Your task to perform on an android device: clear history in the chrome app Image 0: 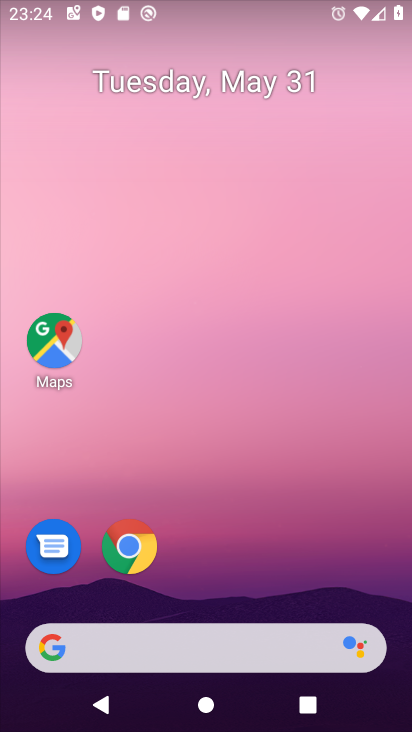
Step 0: click (138, 556)
Your task to perform on an android device: clear history in the chrome app Image 1: 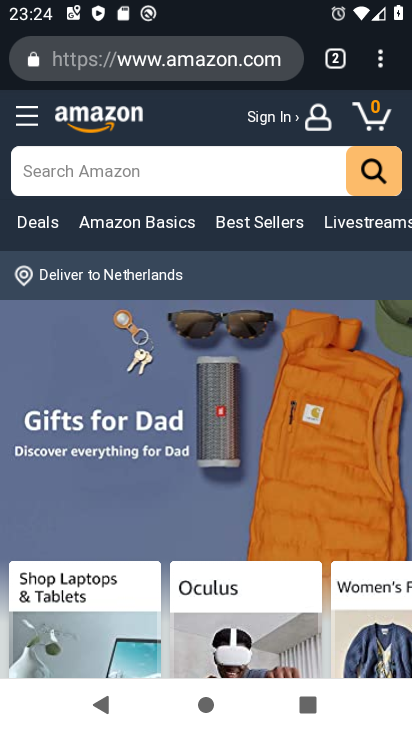
Step 1: click (383, 56)
Your task to perform on an android device: clear history in the chrome app Image 2: 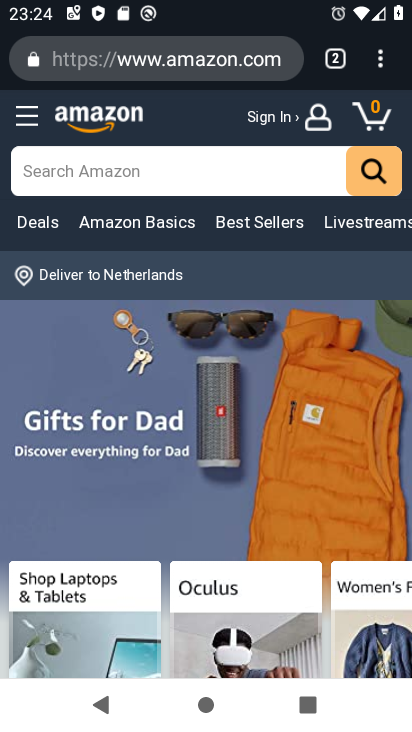
Step 2: drag from (383, 56) to (294, 326)
Your task to perform on an android device: clear history in the chrome app Image 3: 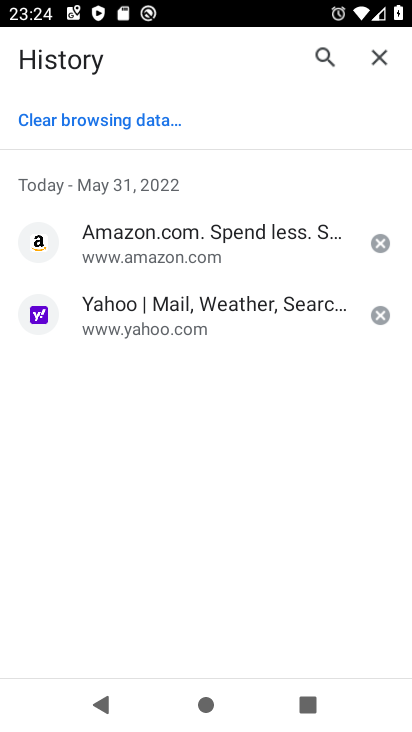
Step 3: click (110, 123)
Your task to perform on an android device: clear history in the chrome app Image 4: 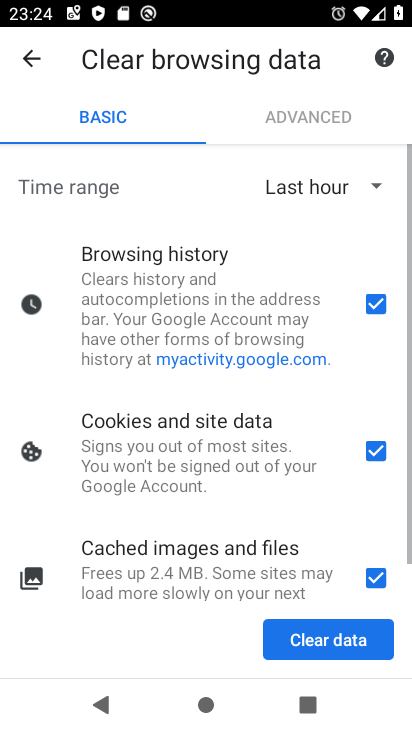
Step 4: click (380, 576)
Your task to perform on an android device: clear history in the chrome app Image 5: 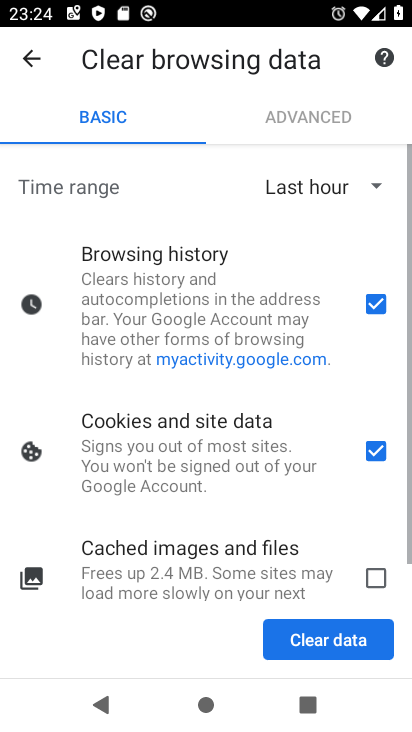
Step 5: click (378, 451)
Your task to perform on an android device: clear history in the chrome app Image 6: 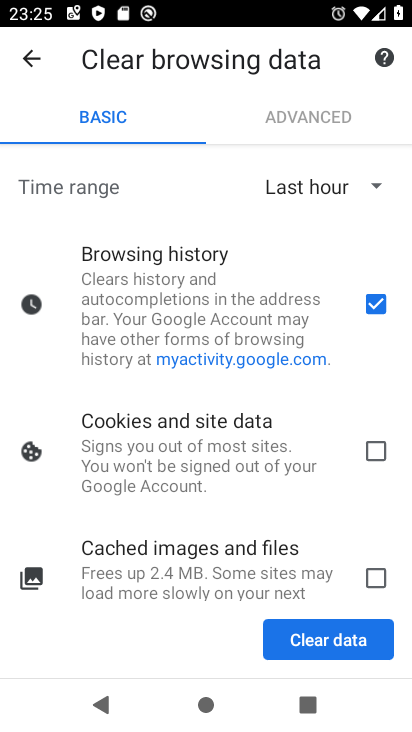
Step 6: click (347, 645)
Your task to perform on an android device: clear history in the chrome app Image 7: 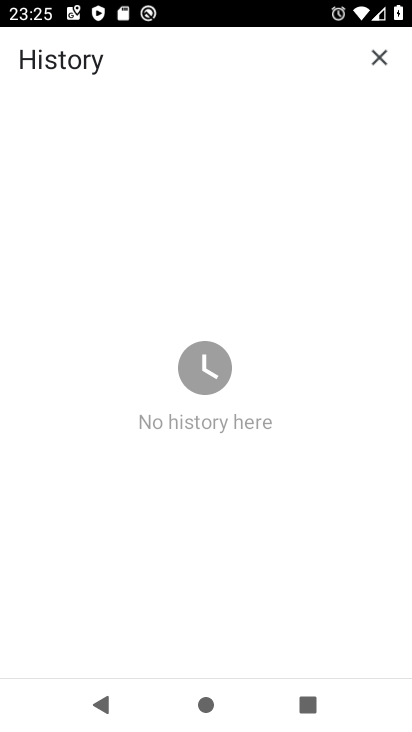
Step 7: task complete